Your task to perform on an android device: Check the settings for the Amazon Prime Video app Image 0: 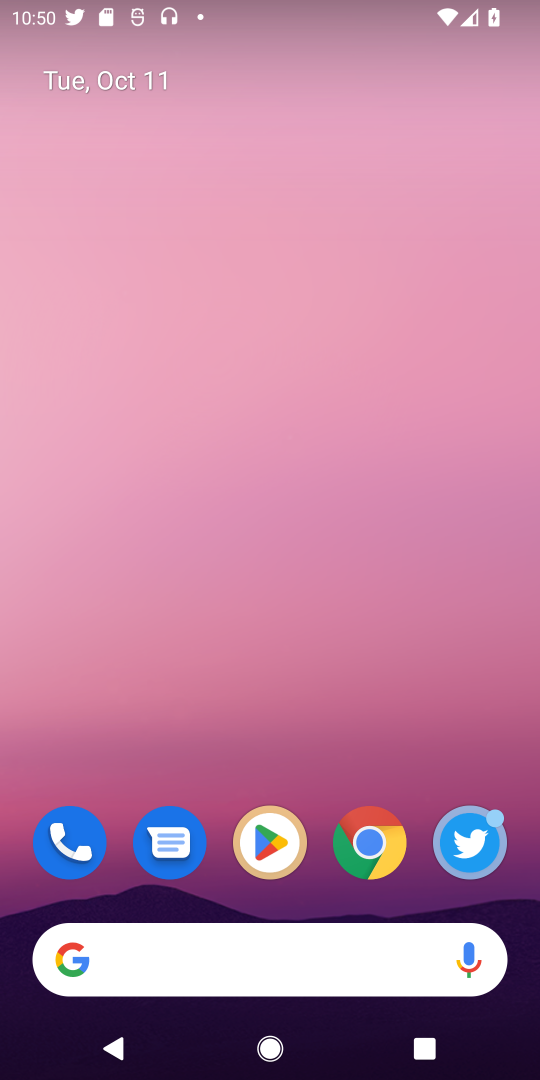
Step 0: click (364, 869)
Your task to perform on an android device: Check the settings for the Amazon Prime Video app Image 1: 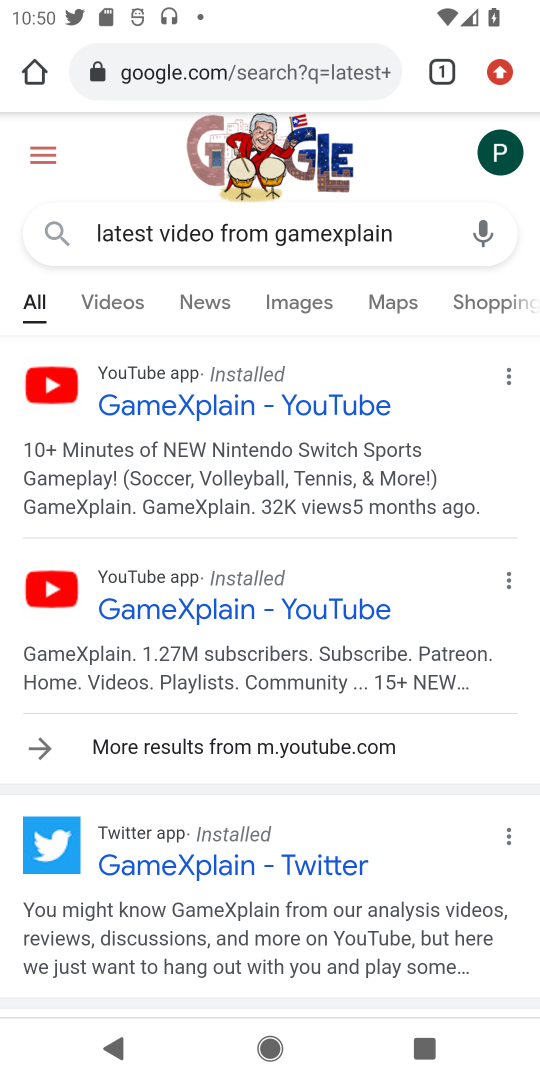
Step 1: press home button
Your task to perform on an android device: Check the settings for the Amazon Prime Video app Image 2: 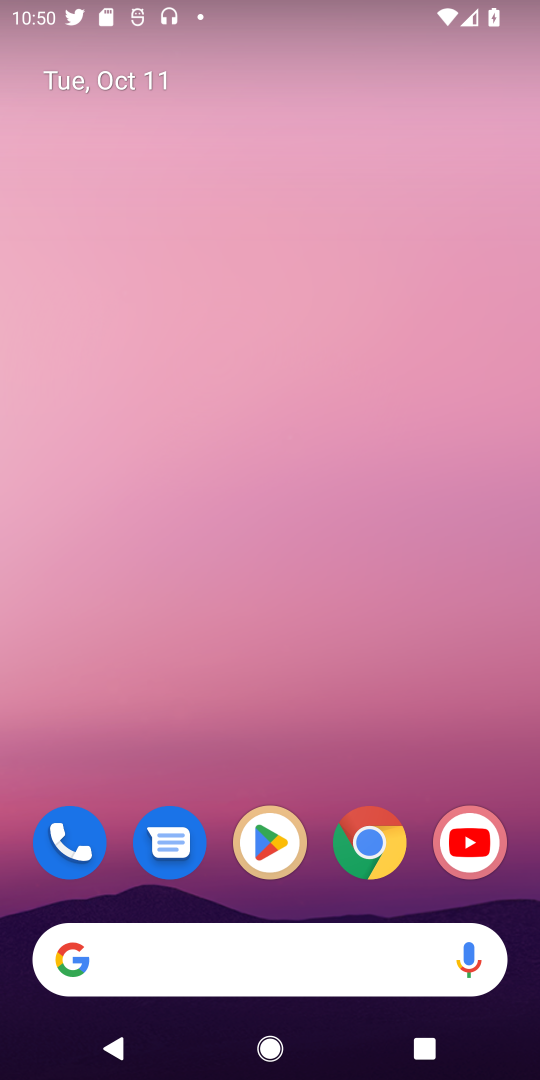
Step 2: drag from (221, 721) to (313, 333)
Your task to perform on an android device: Check the settings for the Amazon Prime Video app Image 3: 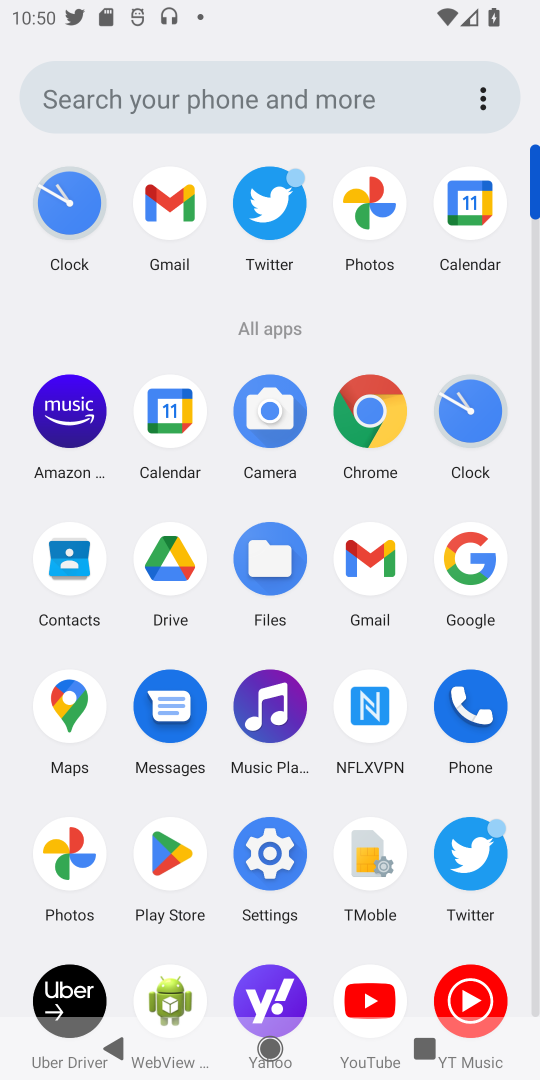
Step 3: drag from (273, 827) to (313, 680)
Your task to perform on an android device: Check the settings for the Amazon Prime Video app Image 4: 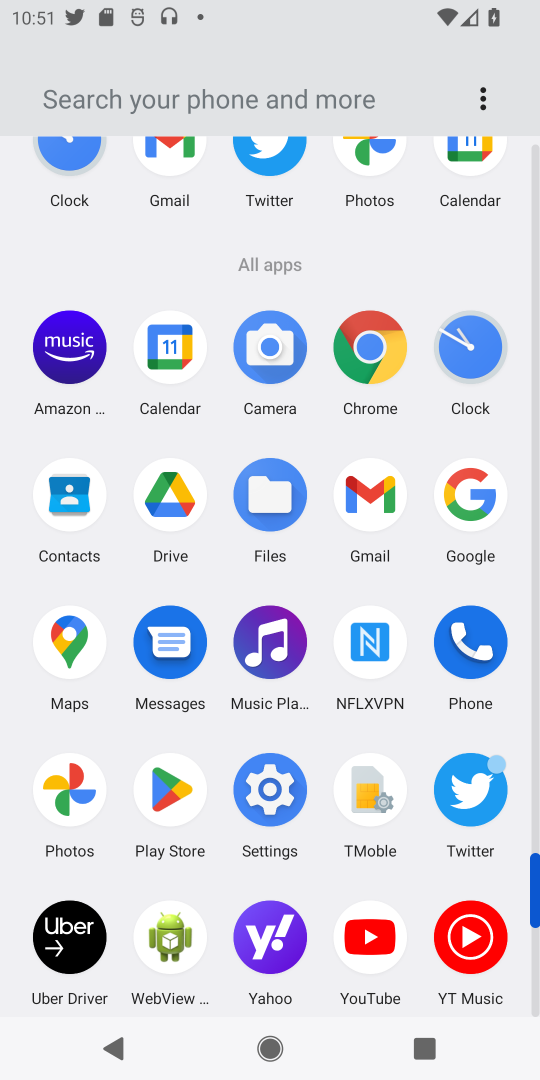
Step 4: press home button
Your task to perform on an android device: Check the settings for the Amazon Prime Video app Image 5: 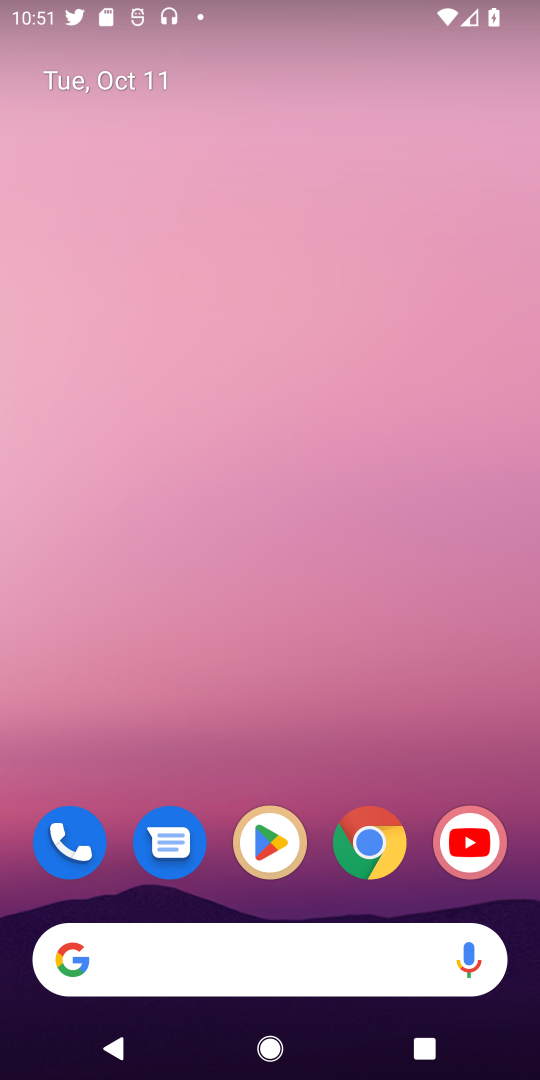
Step 5: click (362, 839)
Your task to perform on an android device: Check the settings for the Amazon Prime Video app Image 6: 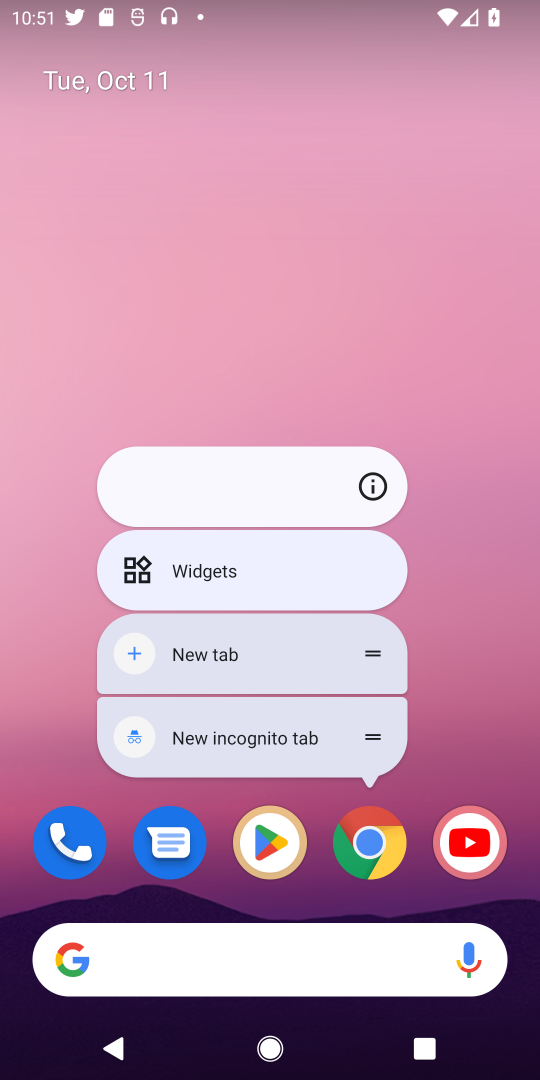
Step 6: click (371, 844)
Your task to perform on an android device: Check the settings for the Amazon Prime Video app Image 7: 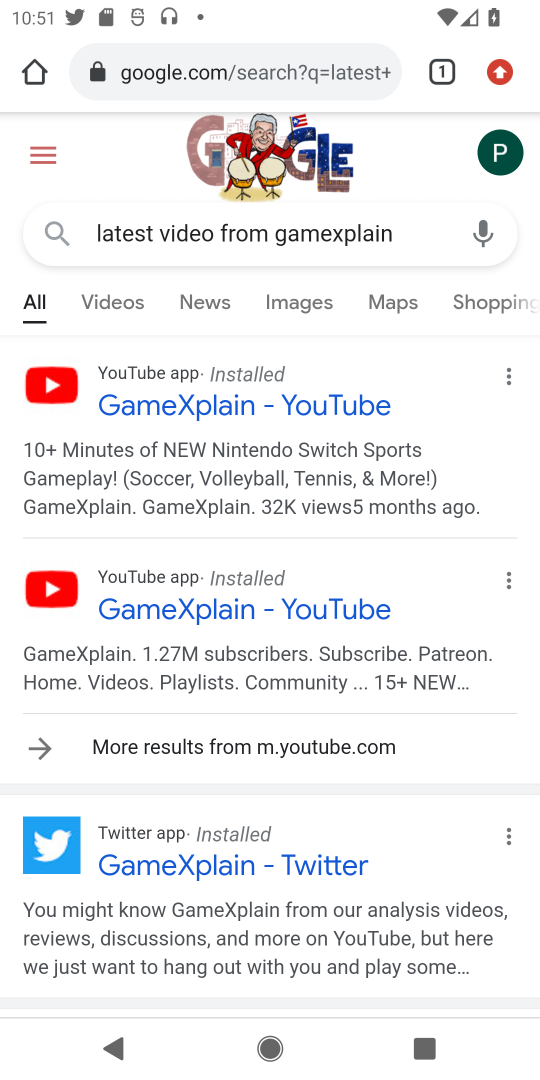
Step 7: click (283, 57)
Your task to perform on an android device: Check the settings for the Amazon Prime Video app Image 8: 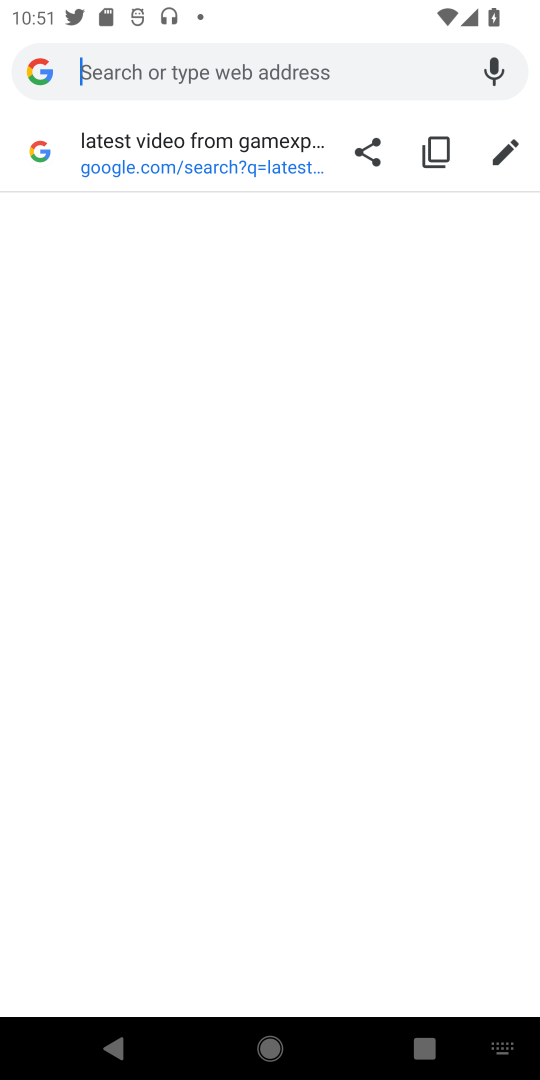
Step 8: type "amazon prime video app"
Your task to perform on an android device: Check the settings for the Amazon Prime Video app Image 9: 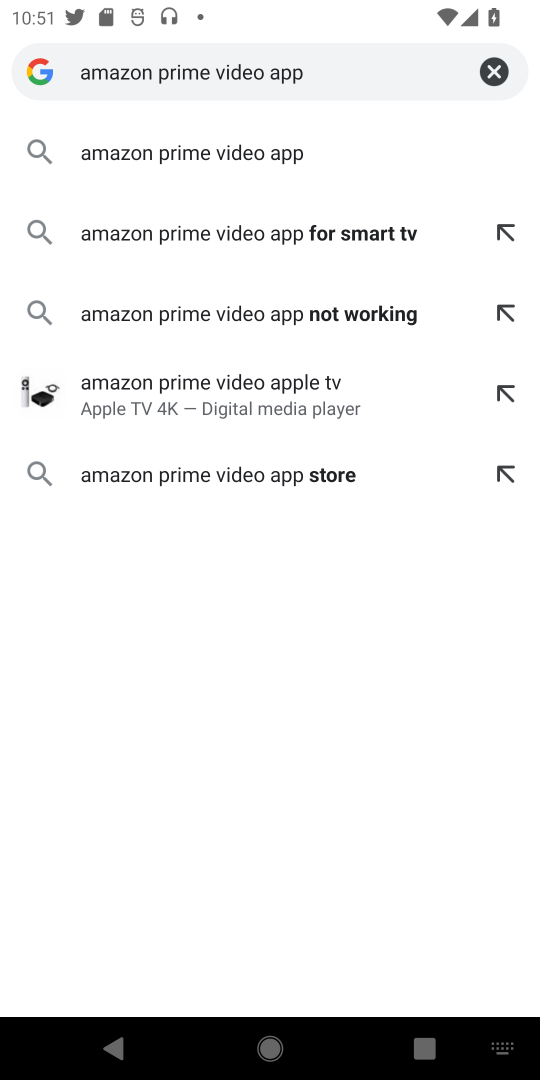
Step 9: click (169, 154)
Your task to perform on an android device: Check the settings for the Amazon Prime Video app Image 10: 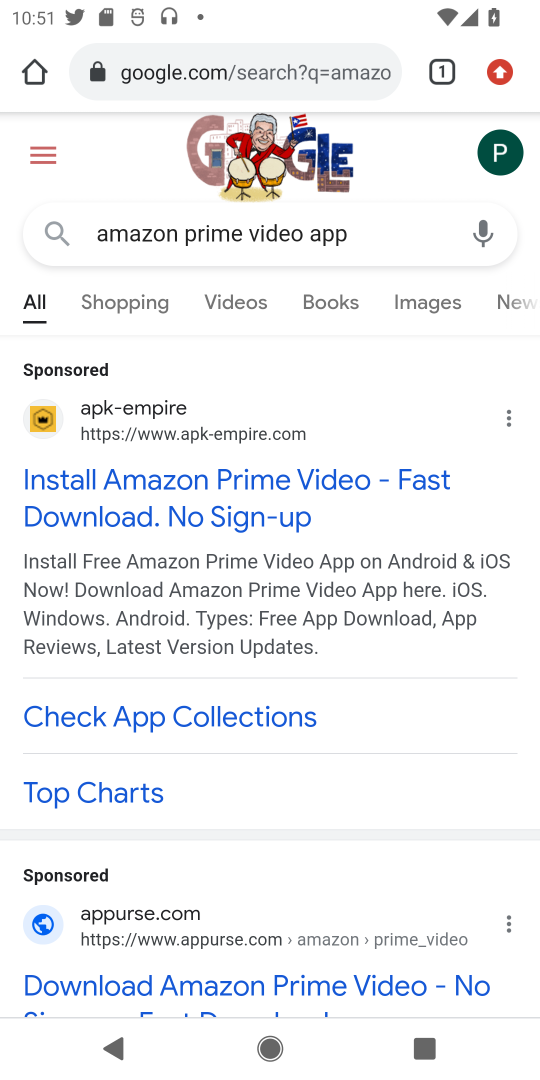
Step 10: click (182, 482)
Your task to perform on an android device: Check the settings for the Amazon Prime Video app Image 11: 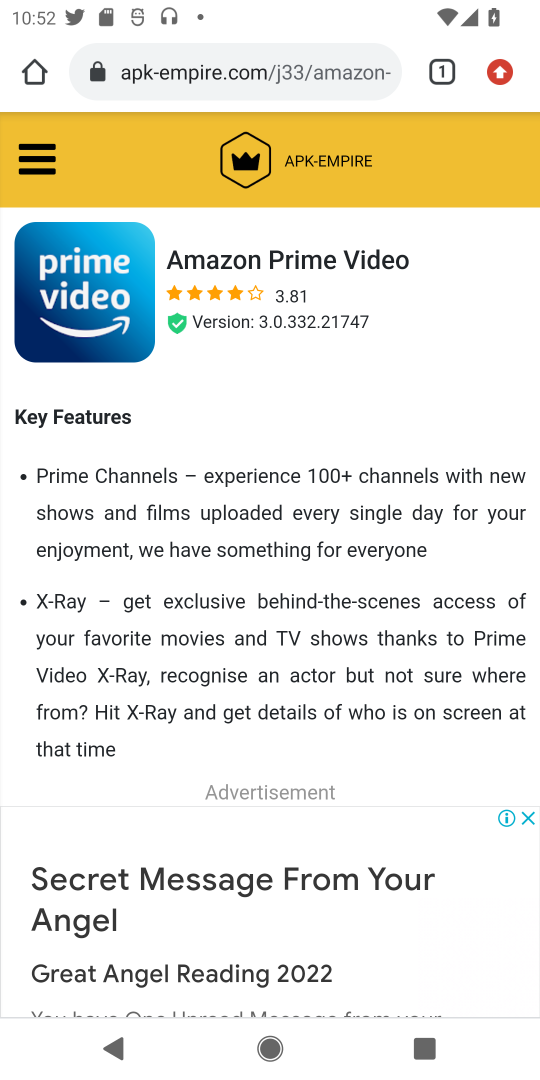
Step 11: click (49, 160)
Your task to perform on an android device: Check the settings for the Amazon Prime Video app Image 12: 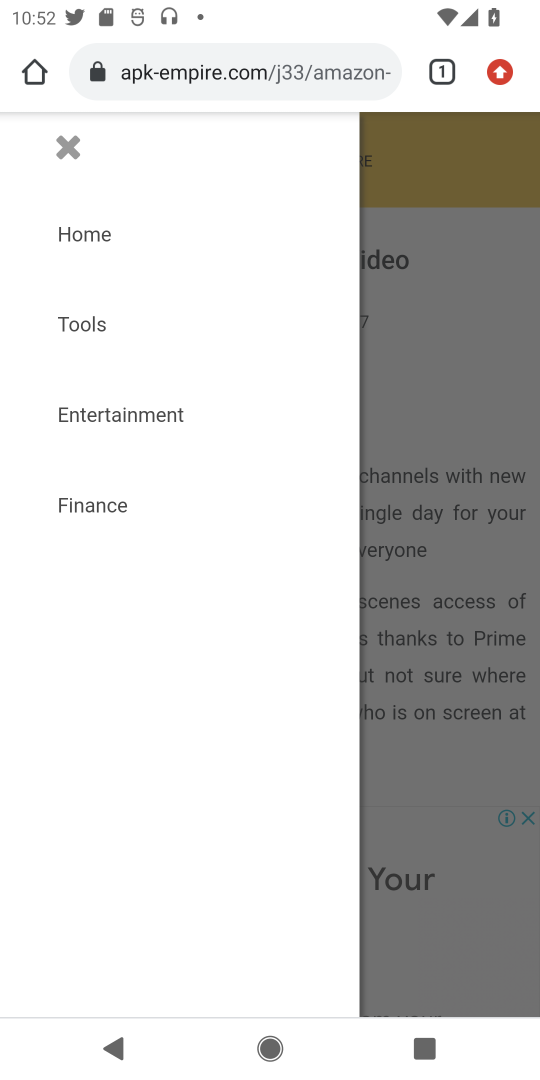
Step 12: click (83, 229)
Your task to perform on an android device: Check the settings for the Amazon Prime Video app Image 13: 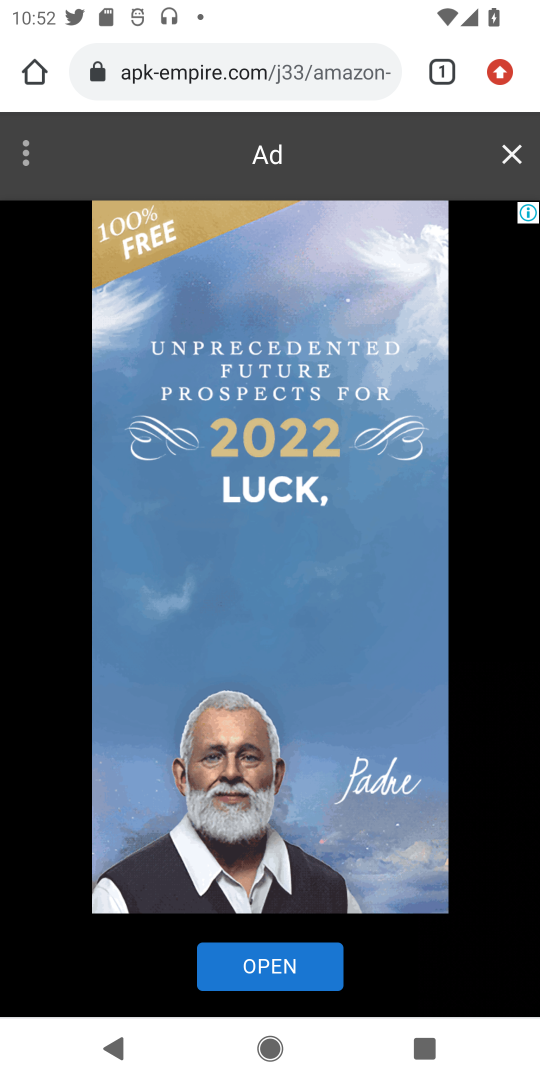
Step 13: click (512, 156)
Your task to perform on an android device: Check the settings for the Amazon Prime Video app Image 14: 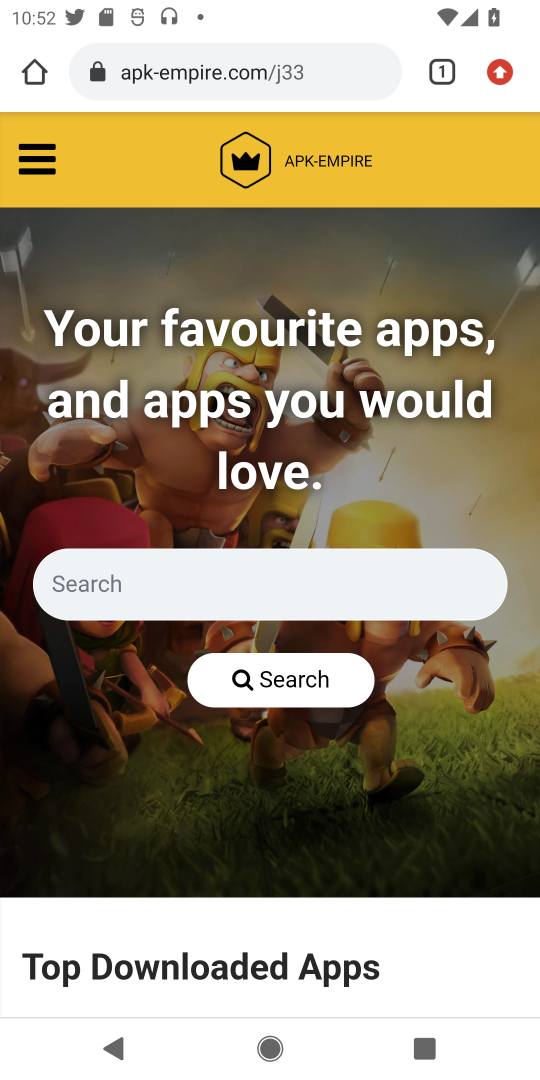
Step 14: drag from (115, 781) to (204, 267)
Your task to perform on an android device: Check the settings for the Amazon Prime Video app Image 15: 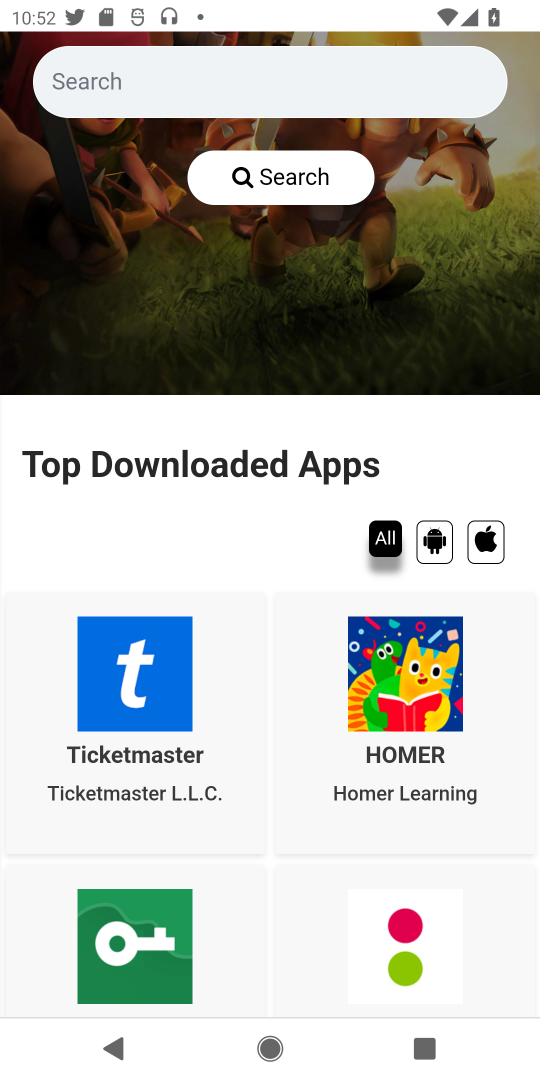
Step 15: drag from (287, 927) to (304, 493)
Your task to perform on an android device: Check the settings for the Amazon Prime Video app Image 16: 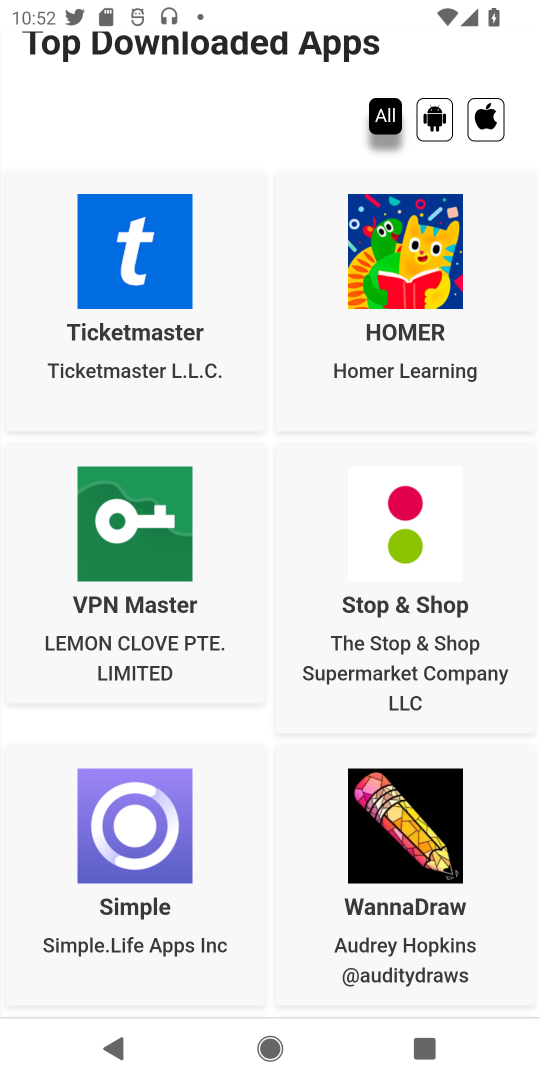
Step 16: drag from (291, 956) to (396, 352)
Your task to perform on an android device: Check the settings for the Amazon Prime Video app Image 17: 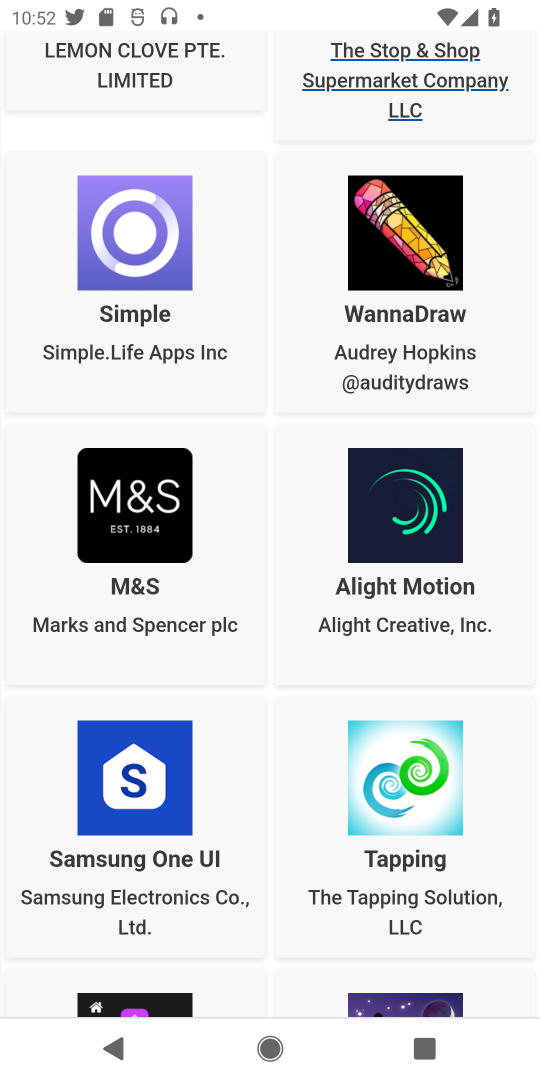
Step 17: drag from (174, 144) to (265, 1073)
Your task to perform on an android device: Check the settings for the Amazon Prime Video app Image 18: 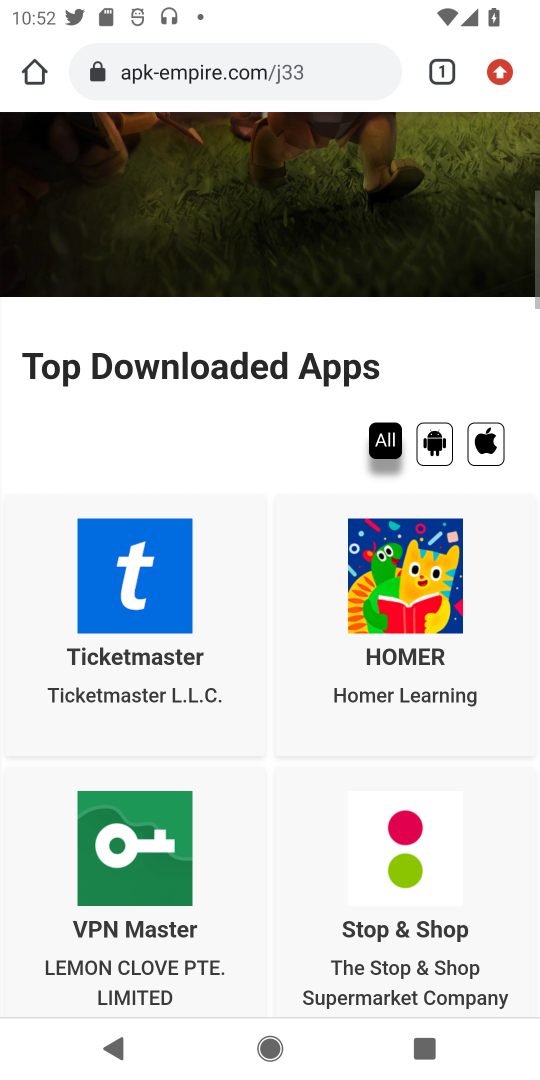
Step 18: drag from (277, 456) to (212, 986)
Your task to perform on an android device: Check the settings for the Amazon Prime Video app Image 19: 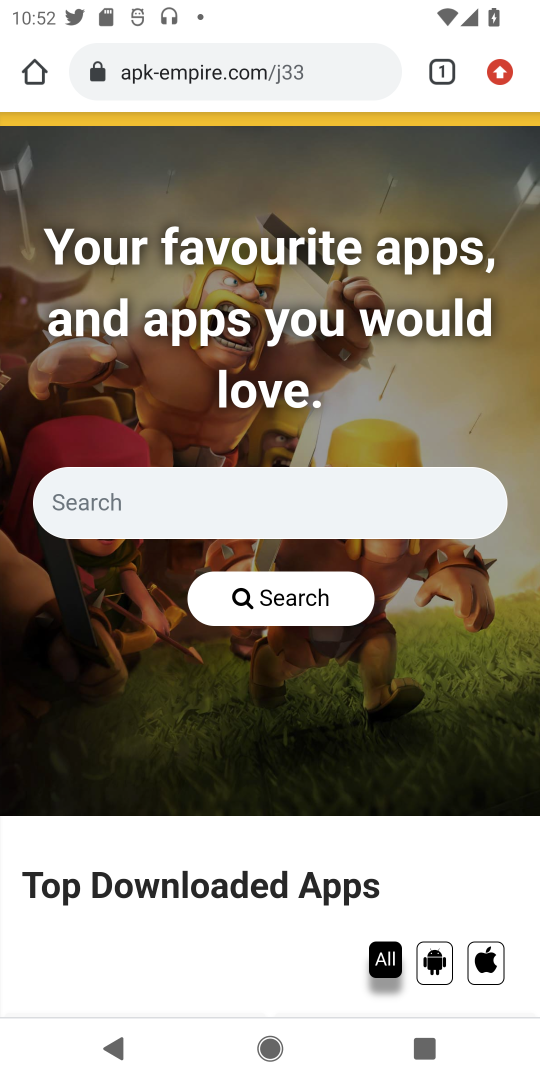
Step 19: press back button
Your task to perform on an android device: Check the settings for the Amazon Prime Video app Image 20: 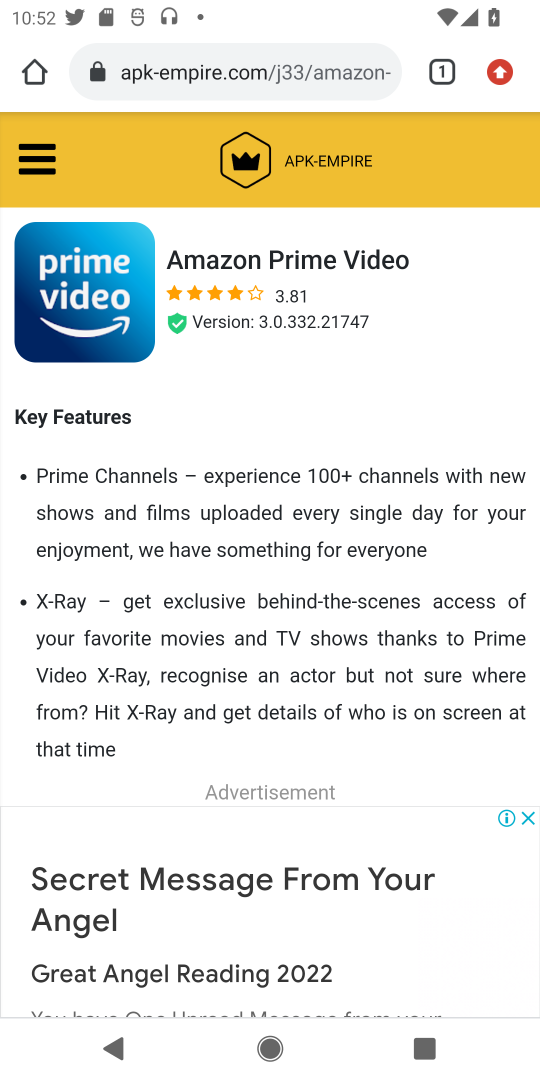
Step 20: press back button
Your task to perform on an android device: Check the settings for the Amazon Prime Video app Image 21: 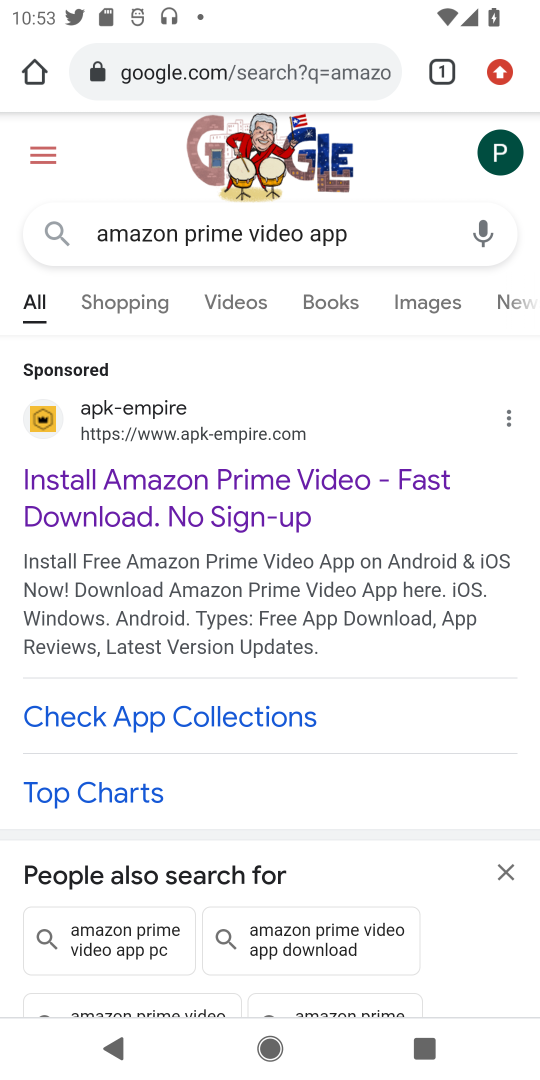
Step 21: click (186, 472)
Your task to perform on an android device: Check the settings for the Amazon Prime Video app Image 22: 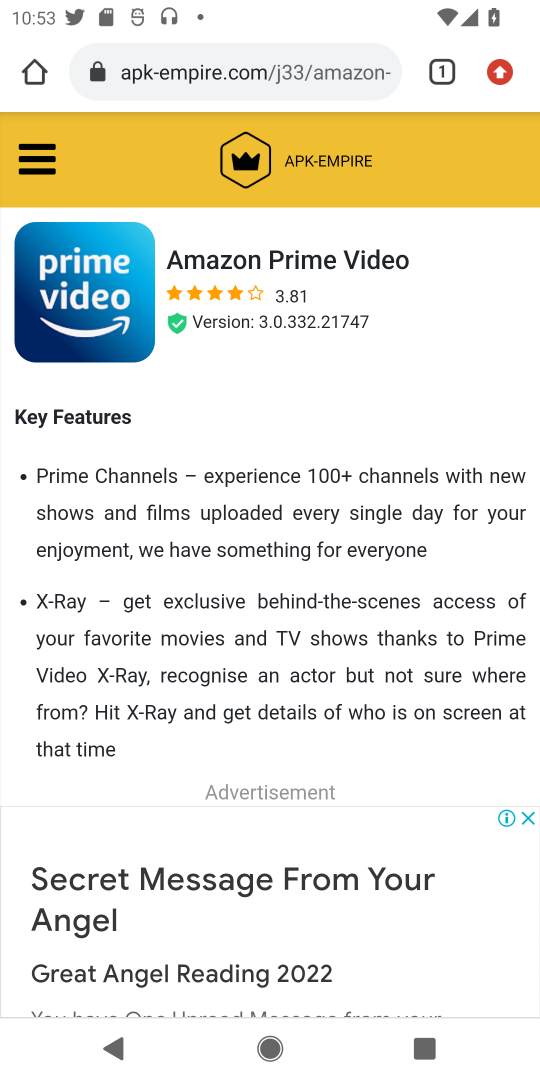
Step 22: task complete